Your task to perform on an android device: turn smart compose on in the gmail app Image 0: 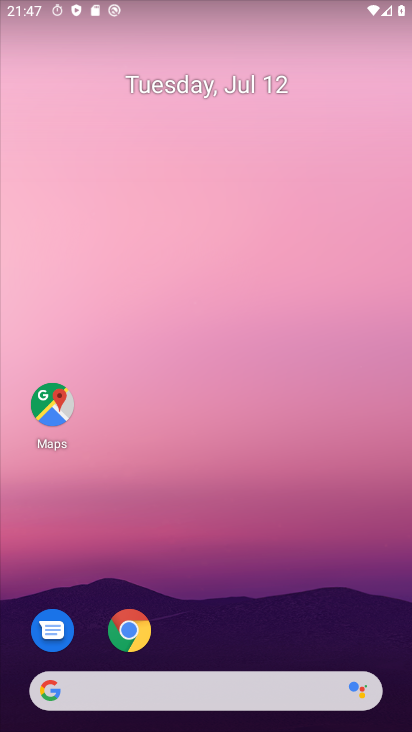
Step 0: drag from (196, 634) to (259, 76)
Your task to perform on an android device: turn smart compose on in the gmail app Image 1: 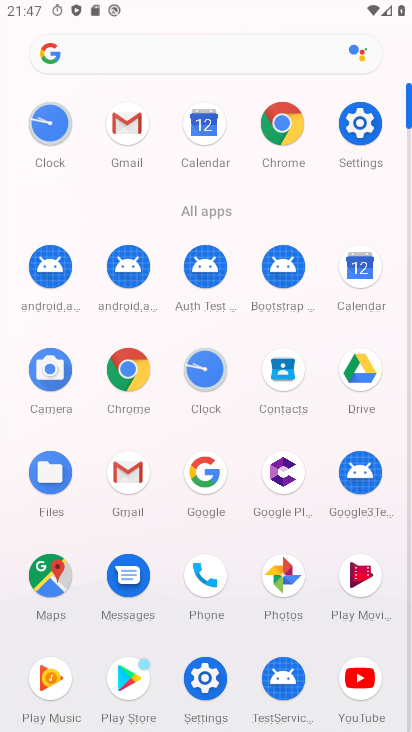
Step 1: click (138, 127)
Your task to perform on an android device: turn smart compose on in the gmail app Image 2: 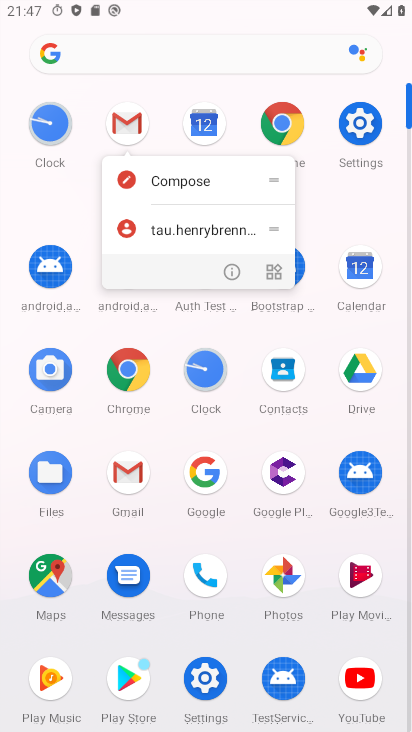
Step 2: click (119, 123)
Your task to perform on an android device: turn smart compose on in the gmail app Image 3: 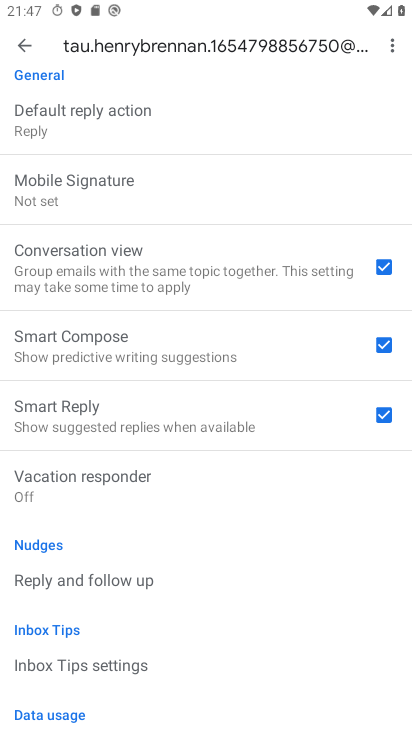
Step 3: task complete